Your task to perform on an android device: change alarm snooze length Image 0: 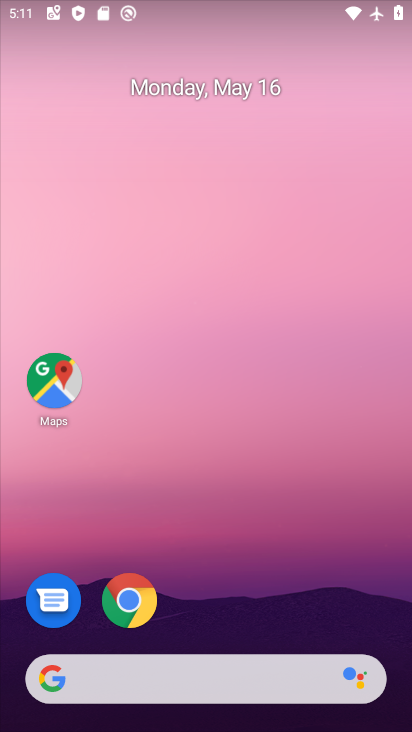
Step 0: drag from (213, 650) to (150, 2)
Your task to perform on an android device: change alarm snooze length Image 1: 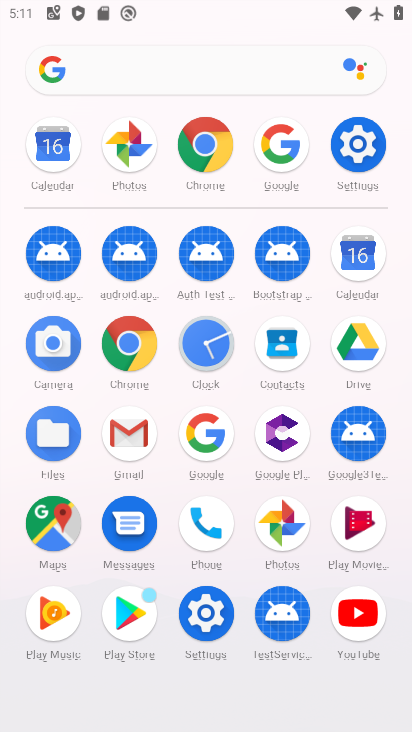
Step 1: click (208, 345)
Your task to perform on an android device: change alarm snooze length Image 2: 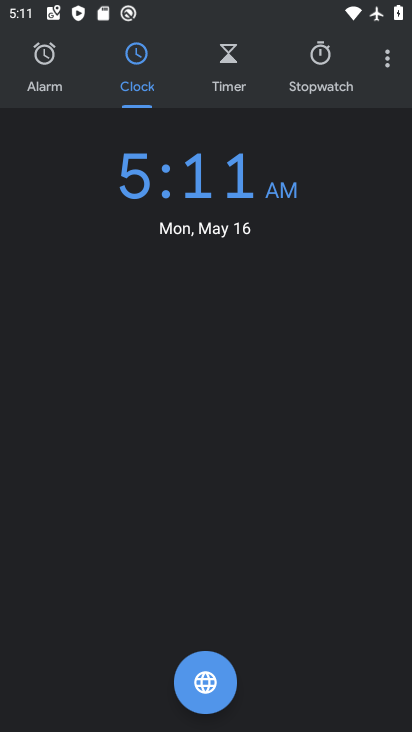
Step 2: click (395, 52)
Your task to perform on an android device: change alarm snooze length Image 3: 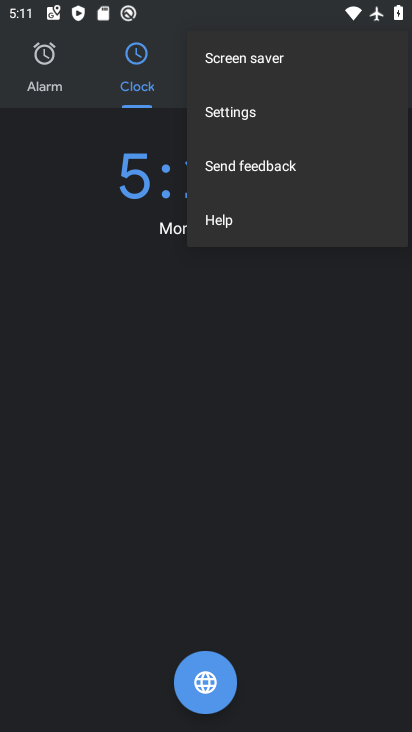
Step 3: click (242, 115)
Your task to perform on an android device: change alarm snooze length Image 4: 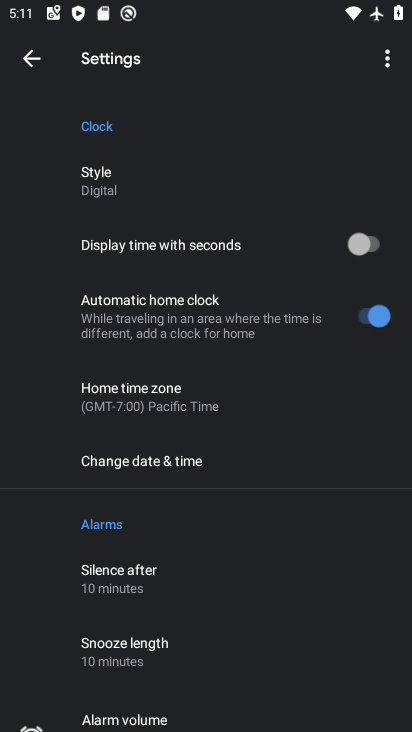
Step 4: click (169, 628)
Your task to perform on an android device: change alarm snooze length Image 5: 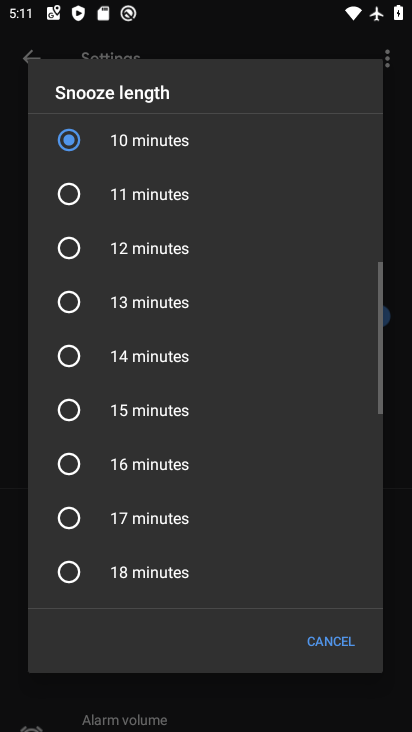
Step 5: click (96, 205)
Your task to perform on an android device: change alarm snooze length Image 6: 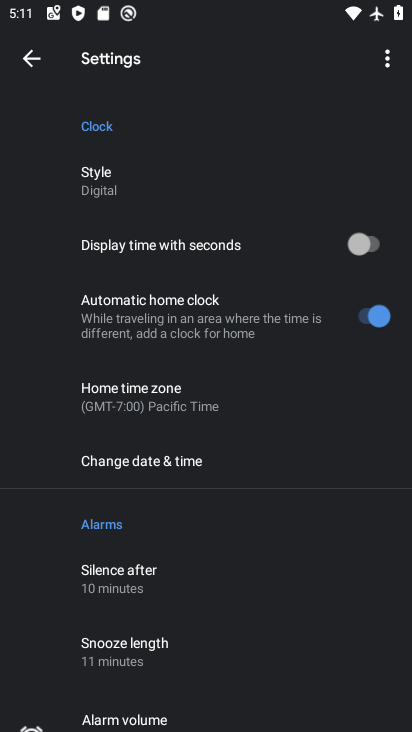
Step 6: task complete